Your task to perform on an android device: turn on javascript in the chrome app Image 0: 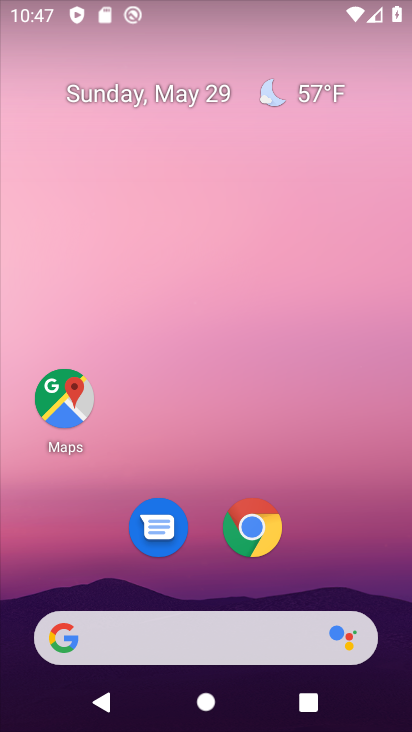
Step 0: click (254, 528)
Your task to perform on an android device: turn on javascript in the chrome app Image 1: 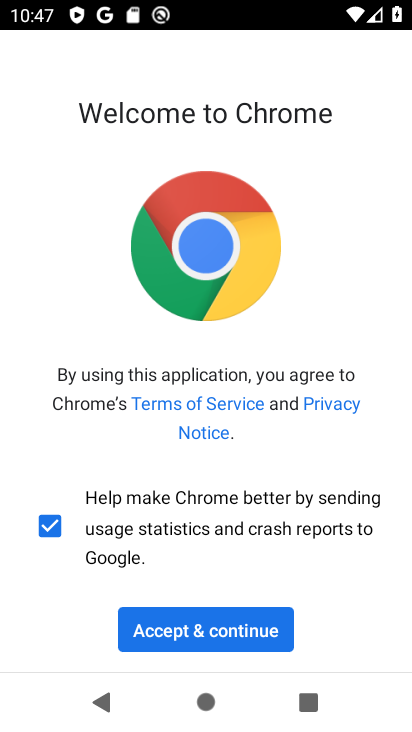
Step 1: click (201, 633)
Your task to perform on an android device: turn on javascript in the chrome app Image 2: 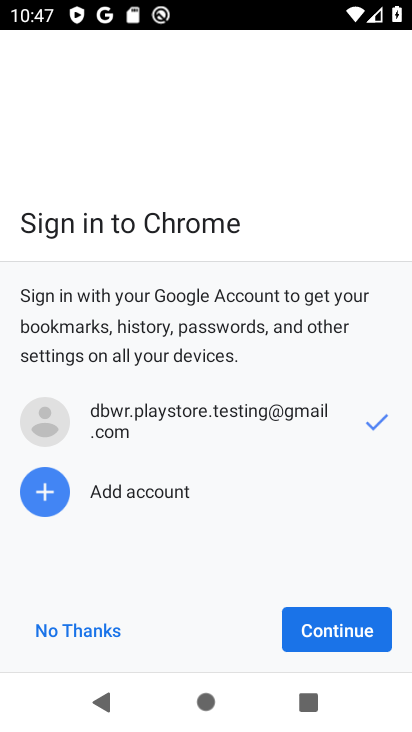
Step 2: click (343, 634)
Your task to perform on an android device: turn on javascript in the chrome app Image 3: 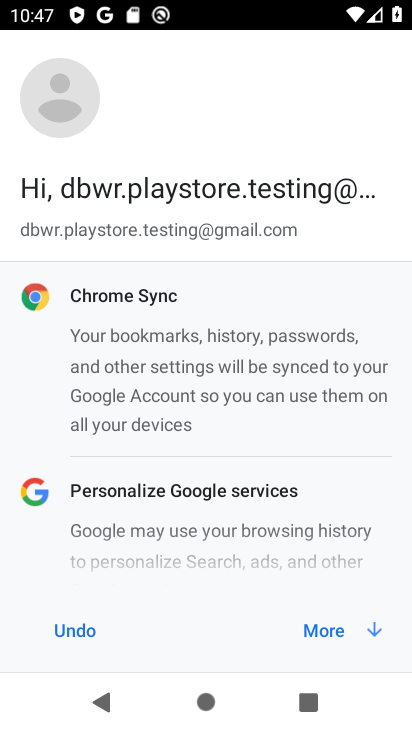
Step 3: click (313, 629)
Your task to perform on an android device: turn on javascript in the chrome app Image 4: 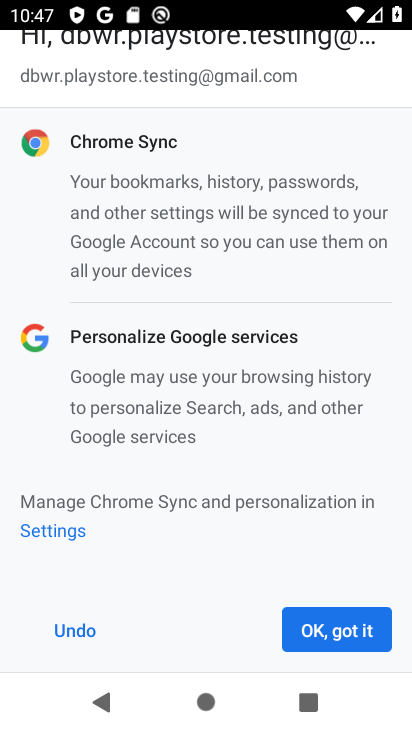
Step 4: click (317, 630)
Your task to perform on an android device: turn on javascript in the chrome app Image 5: 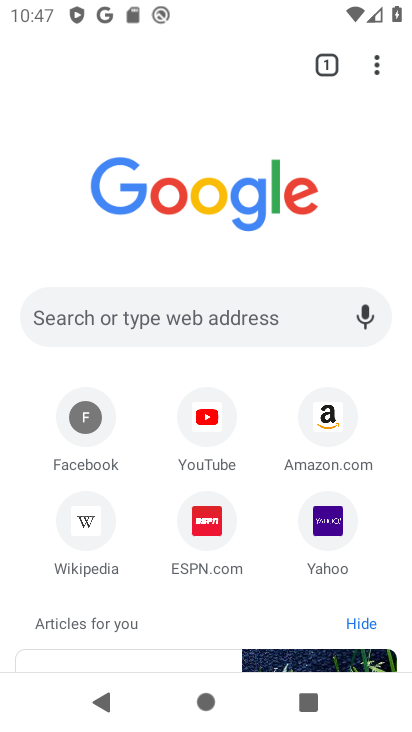
Step 5: click (375, 68)
Your task to perform on an android device: turn on javascript in the chrome app Image 6: 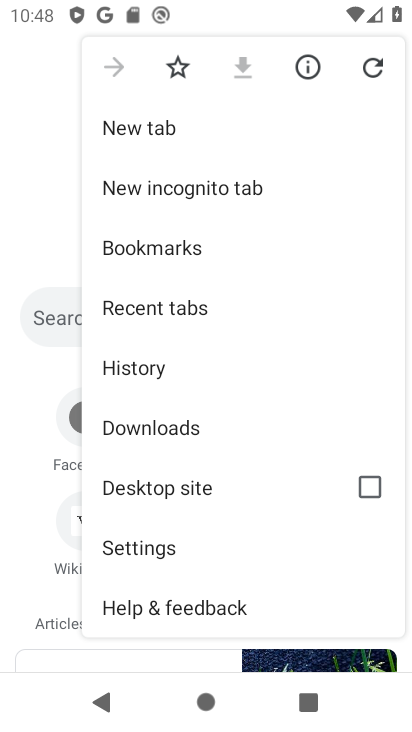
Step 6: click (154, 545)
Your task to perform on an android device: turn on javascript in the chrome app Image 7: 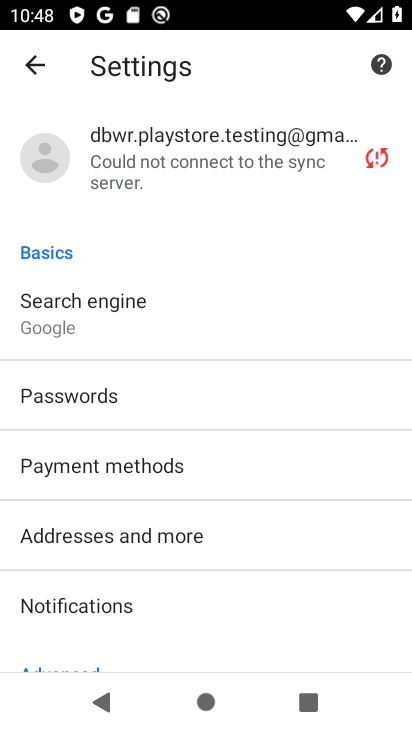
Step 7: drag from (129, 568) to (210, 445)
Your task to perform on an android device: turn on javascript in the chrome app Image 8: 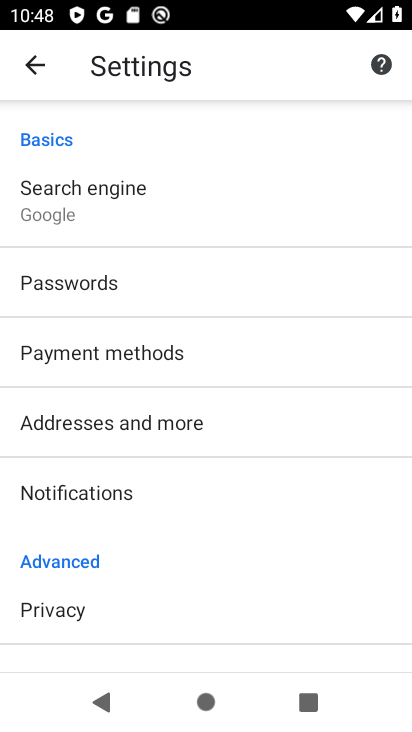
Step 8: drag from (143, 519) to (222, 419)
Your task to perform on an android device: turn on javascript in the chrome app Image 9: 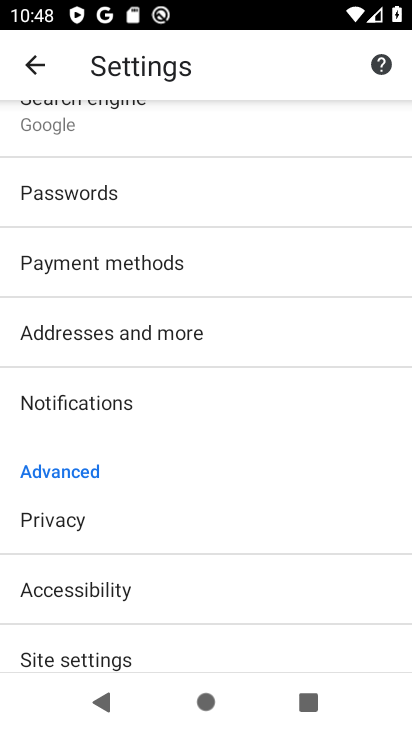
Step 9: drag from (137, 512) to (202, 416)
Your task to perform on an android device: turn on javascript in the chrome app Image 10: 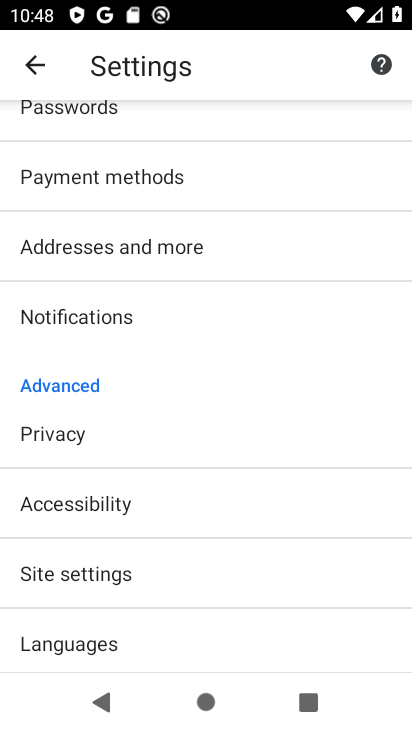
Step 10: drag from (171, 509) to (217, 409)
Your task to perform on an android device: turn on javascript in the chrome app Image 11: 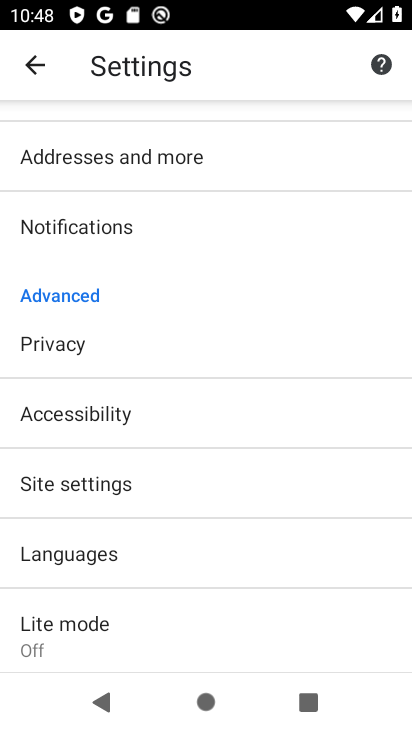
Step 11: drag from (152, 569) to (200, 486)
Your task to perform on an android device: turn on javascript in the chrome app Image 12: 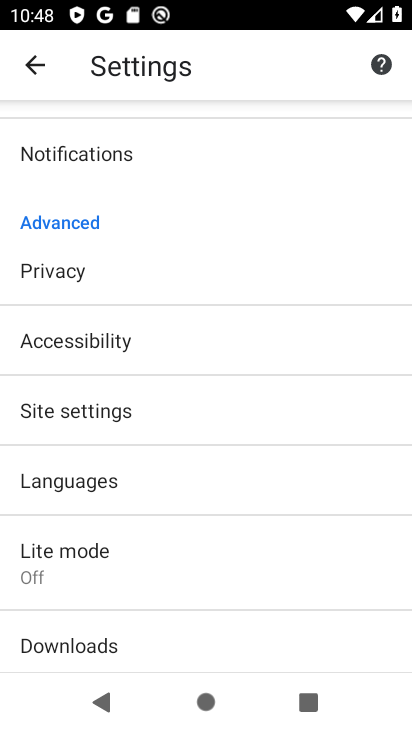
Step 12: click (99, 421)
Your task to perform on an android device: turn on javascript in the chrome app Image 13: 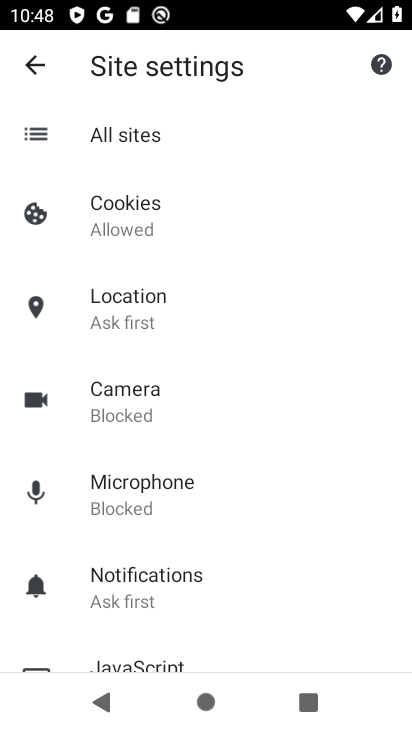
Step 13: drag from (155, 545) to (188, 434)
Your task to perform on an android device: turn on javascript in the chrome app Image 14: 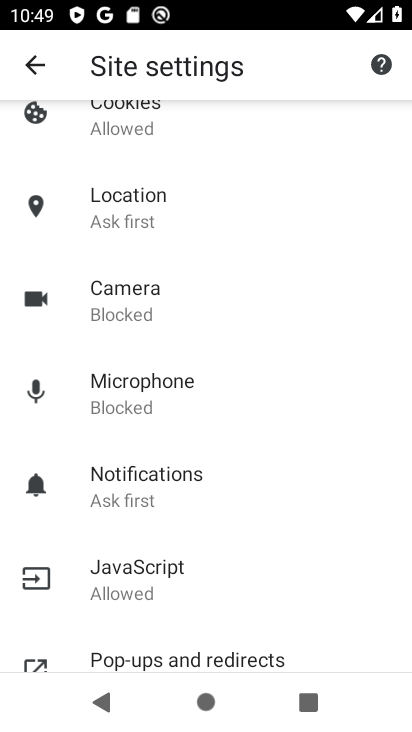
Step 14: click (147, 578)
Your task to perform on an android device: turn on javascript in the chrome app Image 15: 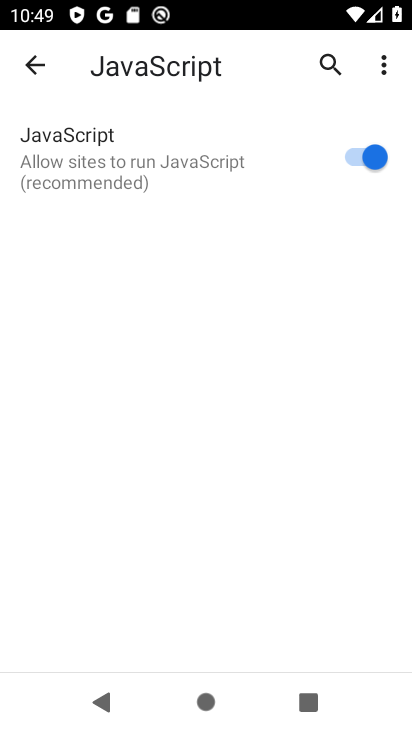
Step 15: task complete